Your task to perform on an android device: see sites visited before in the chrome app Image 0: 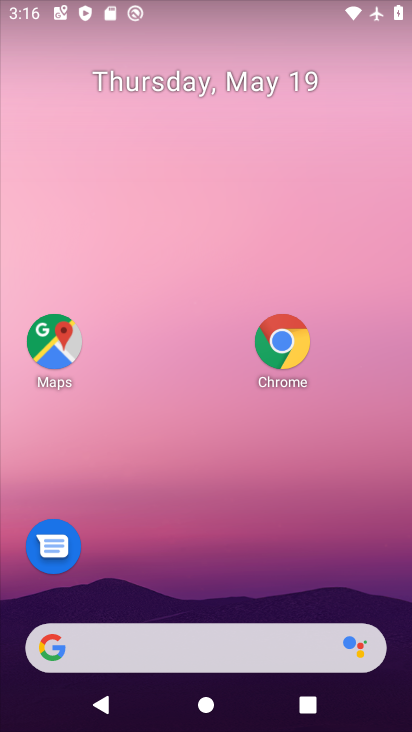
Step 0: press home button
Your task to perform on an android device: see sites visited before in the chrome app Image 1: 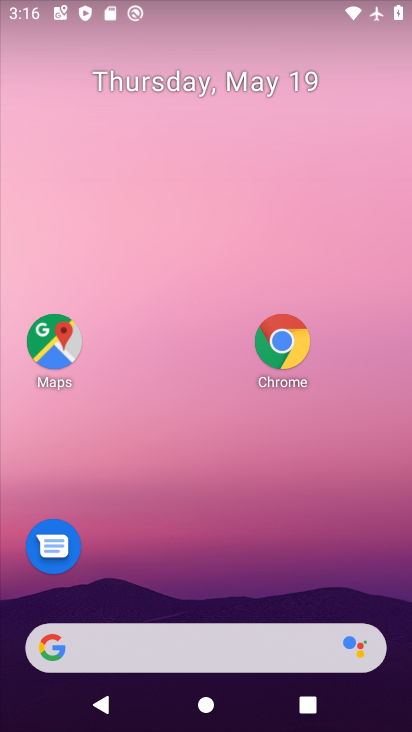
Step 1: drag from (214, 658) to (319, 219)
Your task to perform on an android device: see sites visited before in the chrome app Image 2: 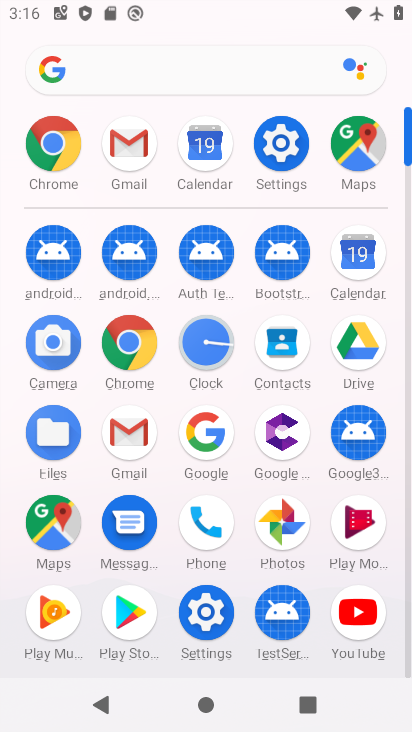
Step 2: click (59, 147)
Your task to perform on an android device: see sites visited before in the chrome app Image 3: 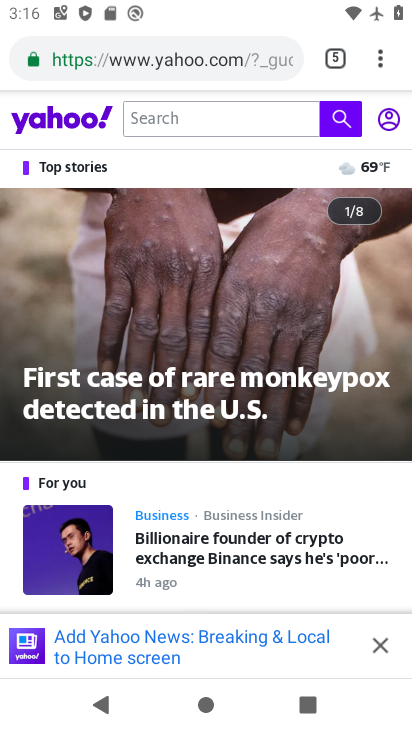
Step 3: task complete